Your task to perform on an android device: Open Google Maps and go to "Timeline" Image 0: 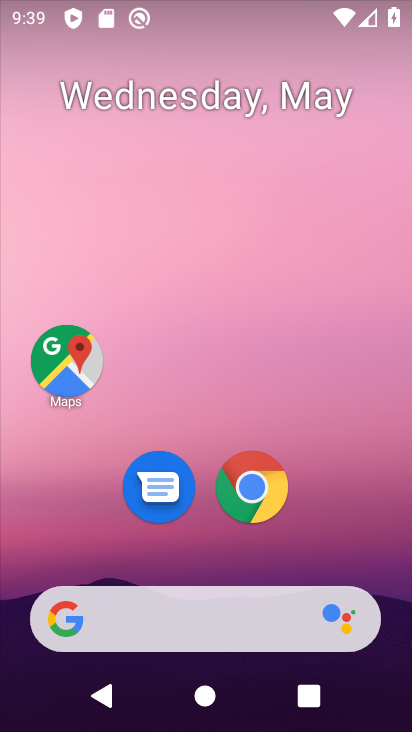
Step 0: drag from (240, 651) to (278, 72)
Your task to perform on an android device: Open Google Maps and go to "Timeline" Image 1: 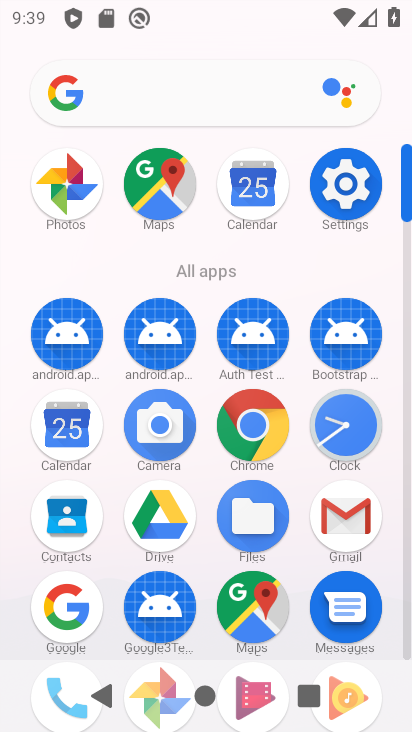
Step 1: click (173, 191)
Your task to perform on an android device: Open Google Maps and go to "Timeline" Image 2: 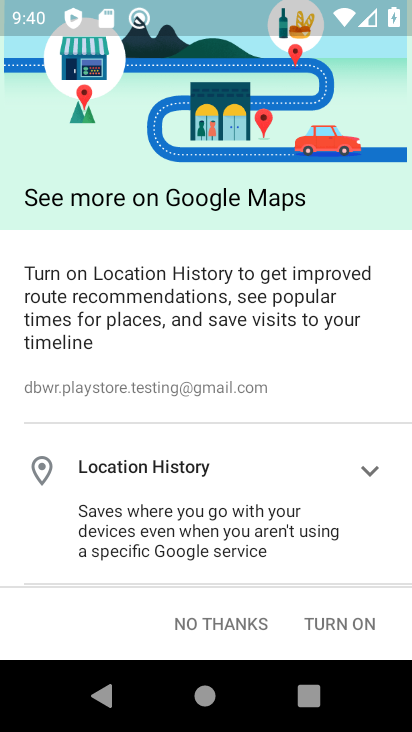
Step 2: click (207, 626)
Your task to perform on an android device: Open Google Maps and go to "Timeline" Image 3: 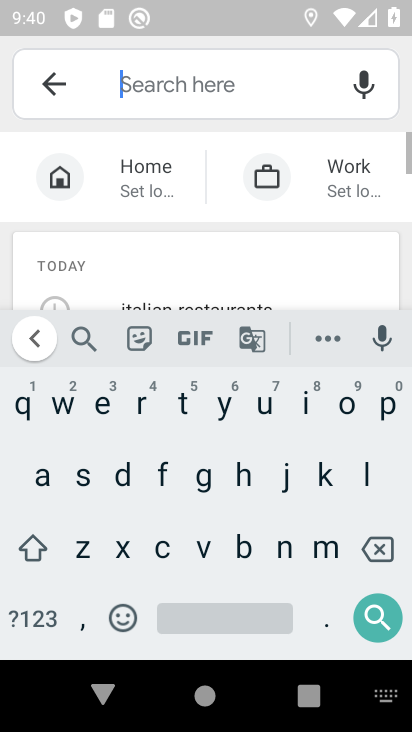
Step 3: click (47, 94)
Your task to perform on an android device: Open Google Maps and go to "Timeline" Image 4: 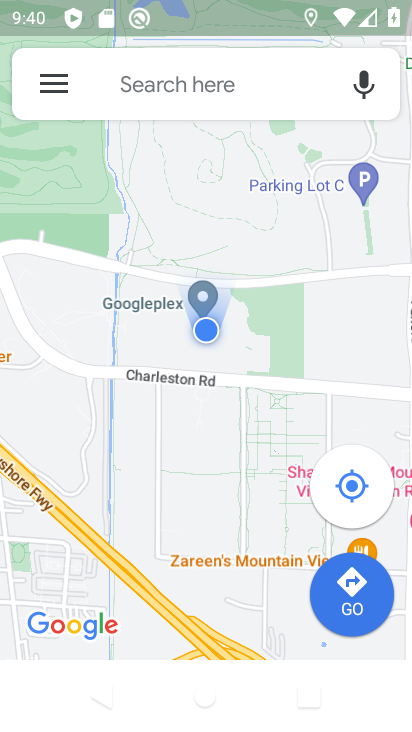
Step 4: click (55, 84)
Your task to perform on an android device: Open Google Maps and go to "Timeline" Image 5: 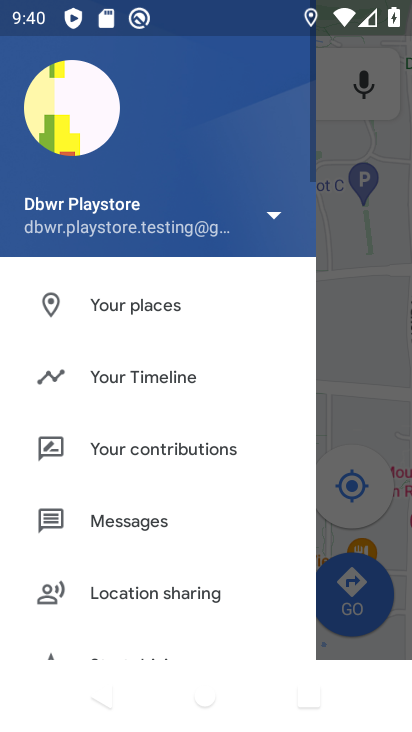
Step 5: click (139, 386)
Your task to perform on an android device: Open Google Maps and go to "Timeline" Image 6: 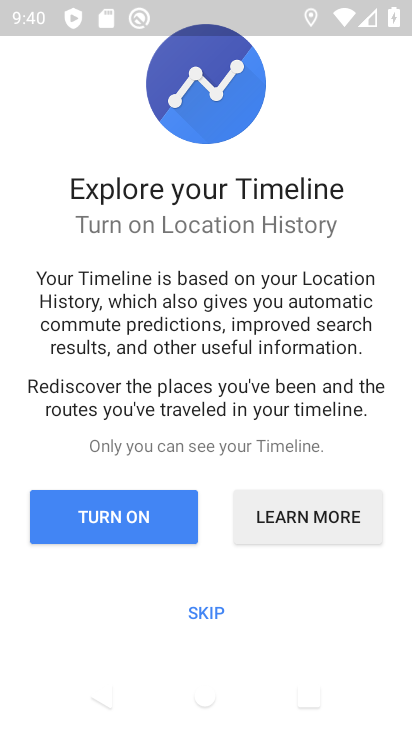
Step 6: click (209, 609)
Your task to perform on an android device: Open Google Maps and go to "Timeline" Image 7: 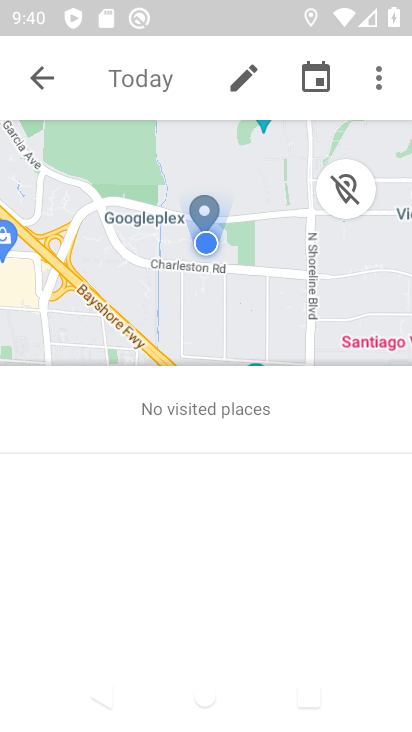
Step 7: task complete